Your task to perform on an android device: toggle data saver in the chrome app Image 0: 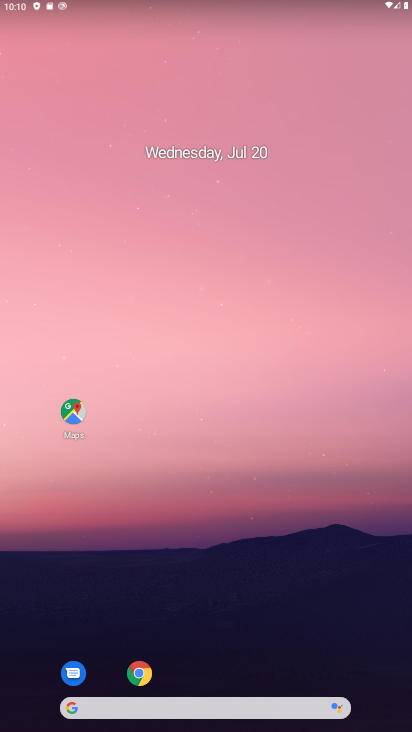
Step 0: drag from (109, 623) to (12, 108)
Your task to perform on an android device: toggle data saver in the chrome app Image 1: 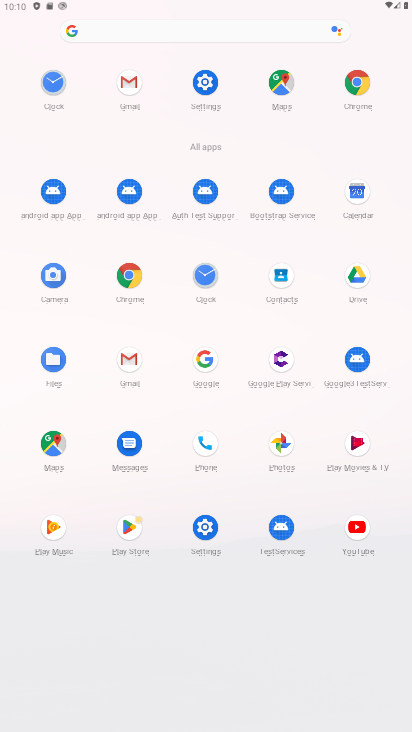
Step 1: click (204, 82)
Your task to perform on an android device: toggle data saver in the chrome app Image 2: 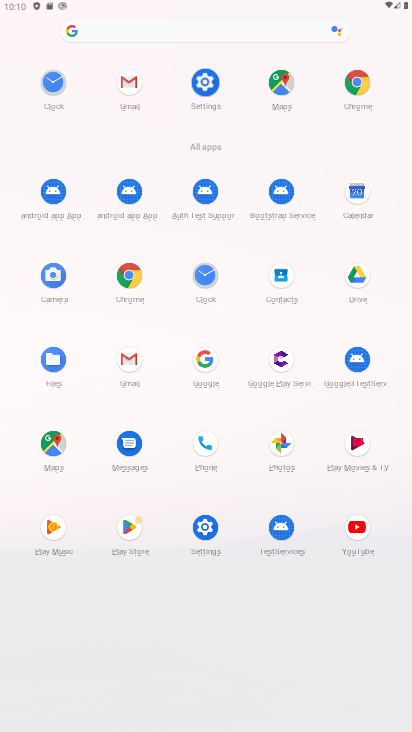
Step 2: click (204, 82)
Your task to perform on an android device: toggle data saver in the chrome app Image 3: 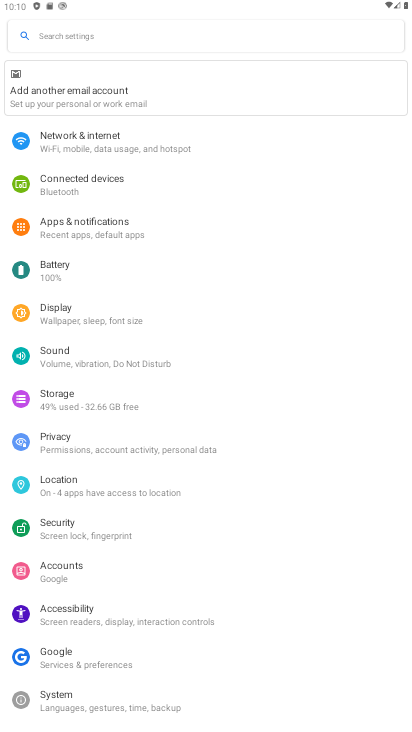
Step 3: click (58, 307)
Your task to perform on an android device: toggle data saver in the chrome app Image 4: 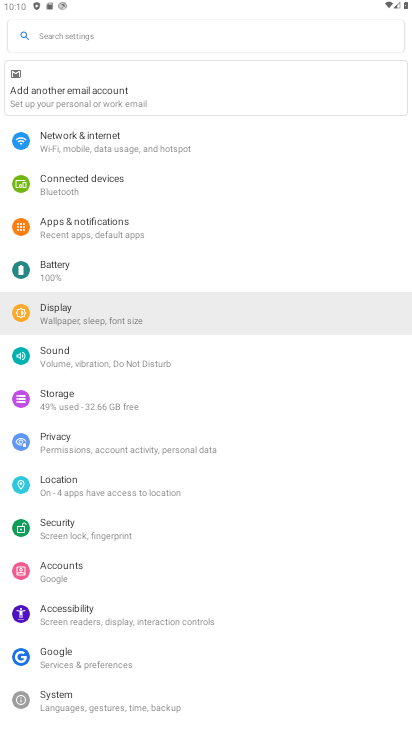
Step 4: click (57, 307)
Your task to perform on an android device: toggle data saver in the chrome app Image 5: 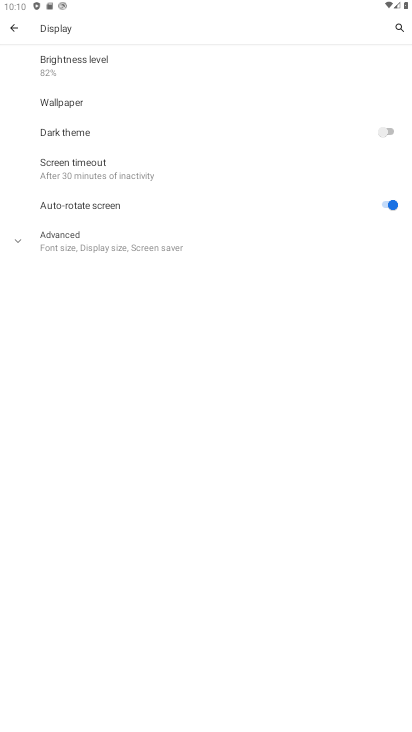
Step 5: click (52, 242)
Your task to perform on an android device: toggle data saver in the chrome app Image 6: 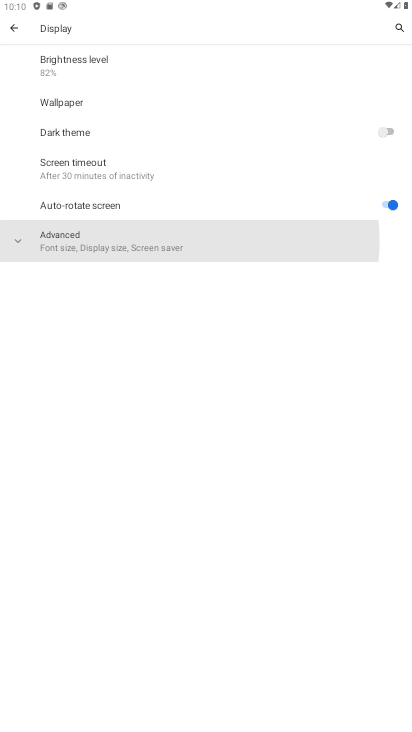
Step 6: click (59, 239)
Your task to perform on an android device: toggle data saver in the chrome app Image 7: 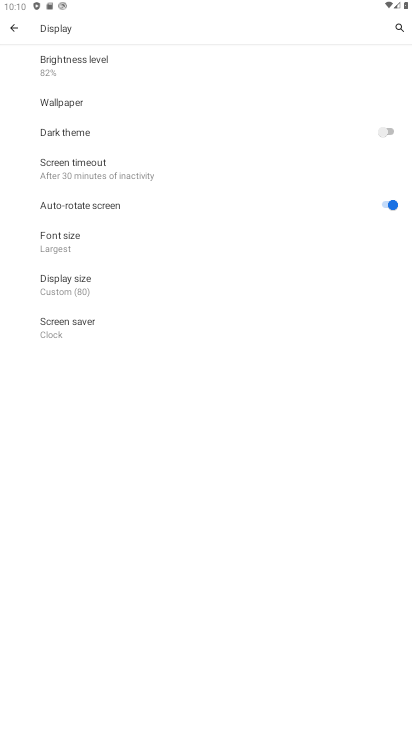
Step 7: click (59, 243)
Your task to perform on an android device: toggle data saver in the chrome app Image 8: 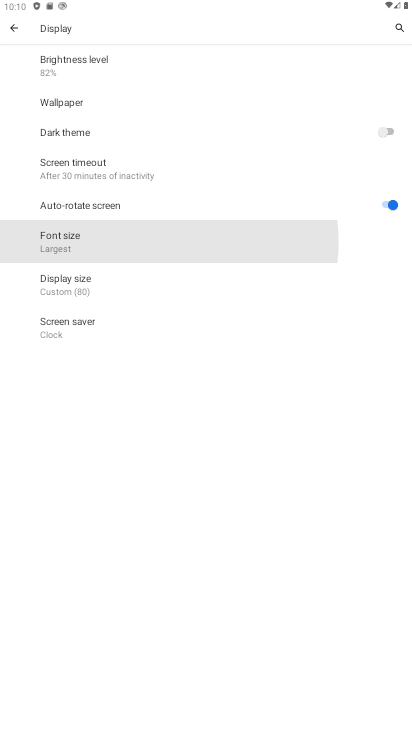
Step 8: click (58, 242)
Your task to perform on an android device: toggle data saver in the chrome app Image 9: 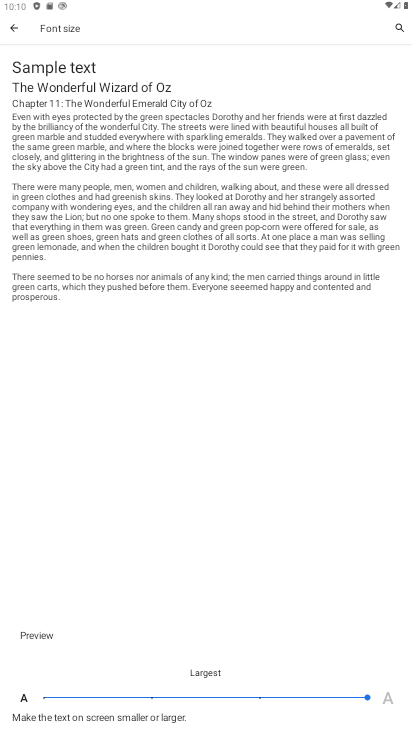
Step 9: click (369, 698)
Your task to perform on an android device: toggle data saver in the chrome app Image 10: 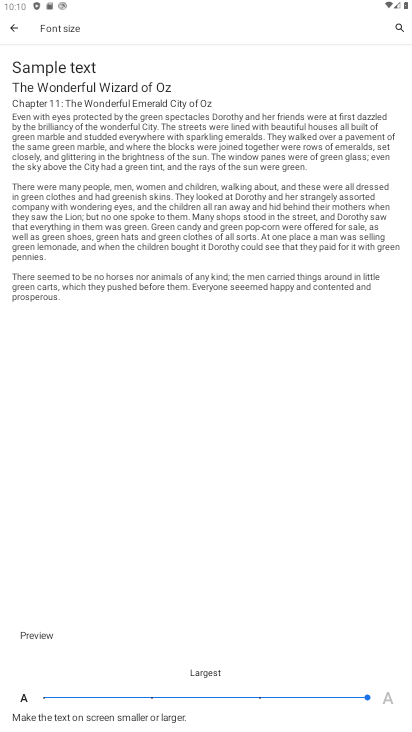
Step 10: click (386, 693)
Your task to perform on an android device: toggle data saver in the chrome app Image 11: 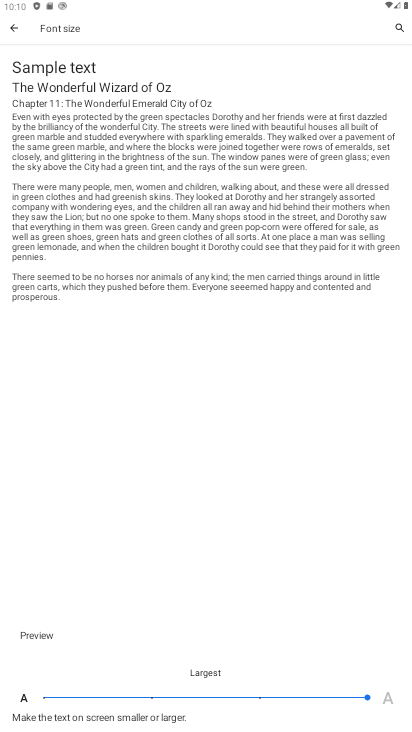
Step 11: click (387, 692)
Your task to perform on an android device: toggle data saver in the chrome app Image 12: 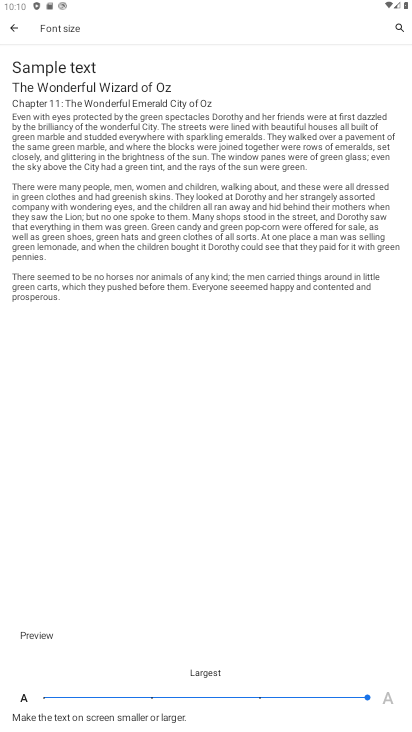
Step 12: click (388, 690)
Your task to perform on an android device: toggle data saver in the chrome app Image 13: 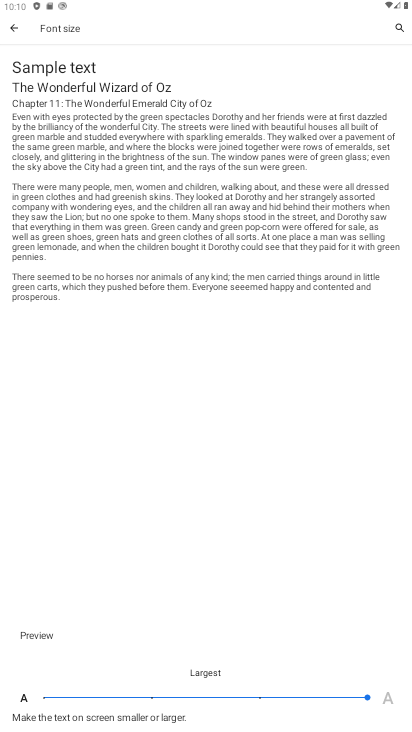
Step 13: click (391, 691)
Your task to perform on an android device: toggle data saver in the chrome app Image 14: 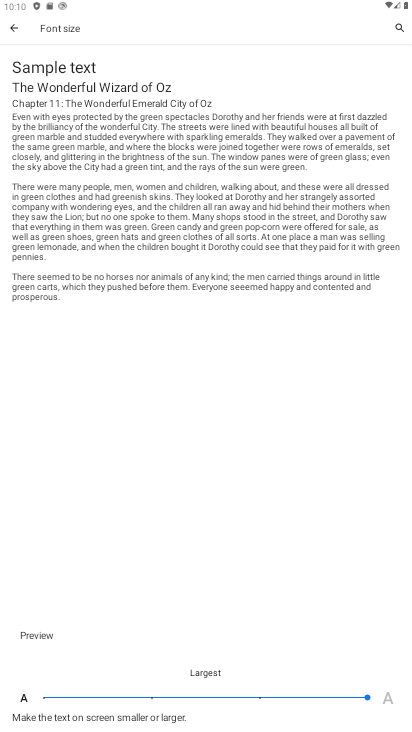
Step 14: click (392, 692)
Your task to perform on an android device: toggle data saver in the chrome app Image 15: 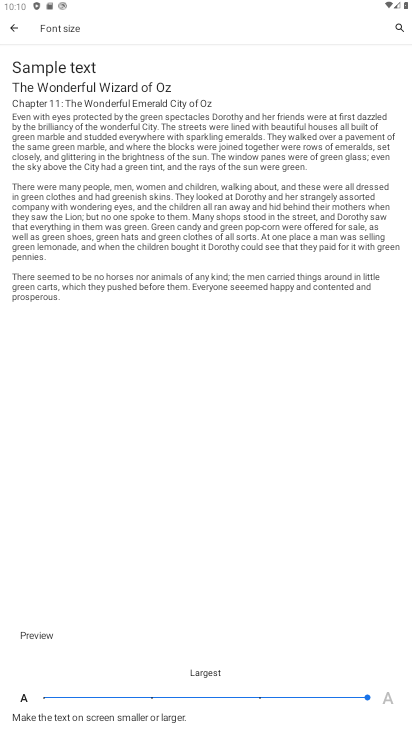
Step 15: click (393, 693)
Your task to perform on an android device: toggle data saver in the chrome app Image 16: 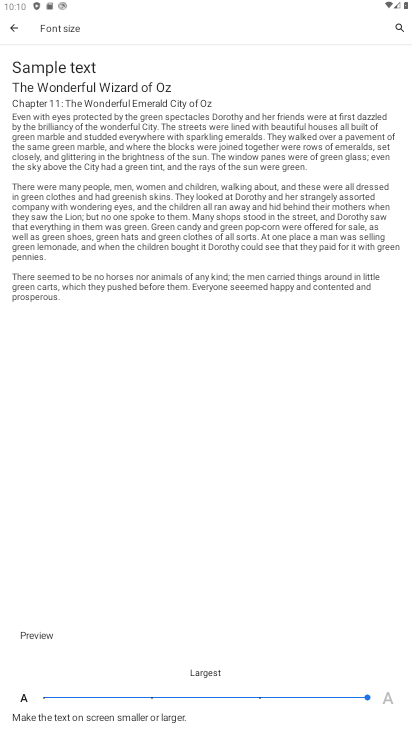
Step 16: click (16, 29)
Your task to perform on an android device: toggle data saver in the chrome app Image 17: 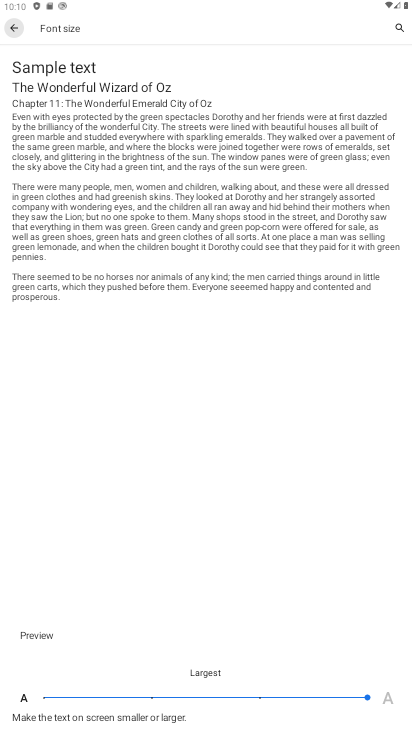
Step 17: click (16, 29)
Your task to perform on an android device: toggle data saver in the chrome app Image 18: 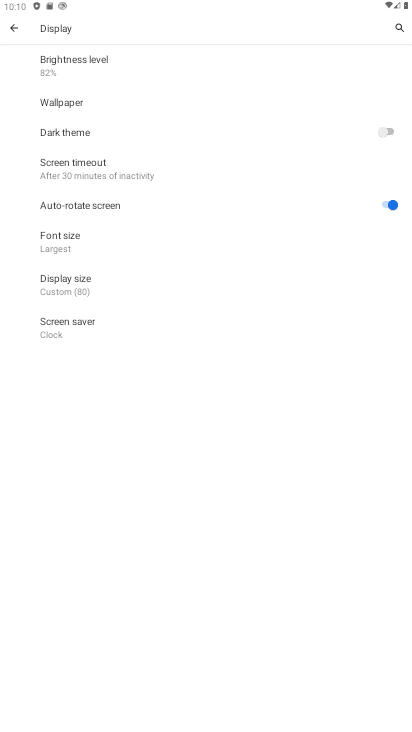
Step 18: press back button
Your task to perform on an android device: toggle data saver in the chrome app Image 19: 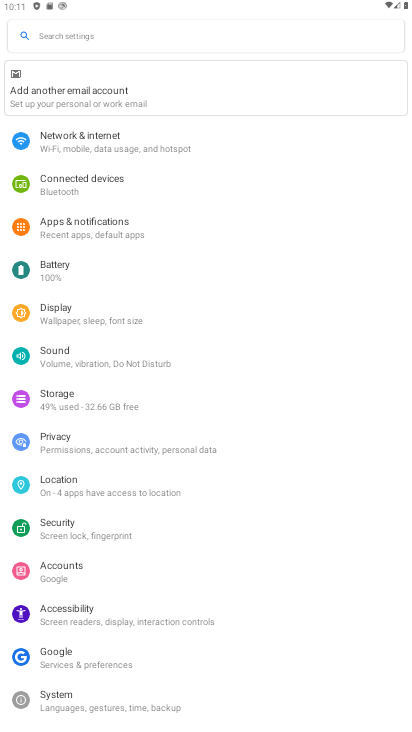
Step 19: press home button
Your task to perform on an android device: toggle data saver in the chrome app Image 20: 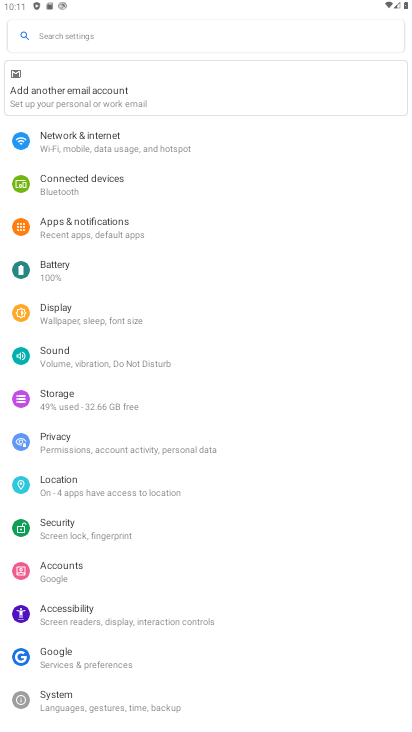
Step 20: press home button
Your task to perform on an android device: toggle data saver in the chrome app Image 21: 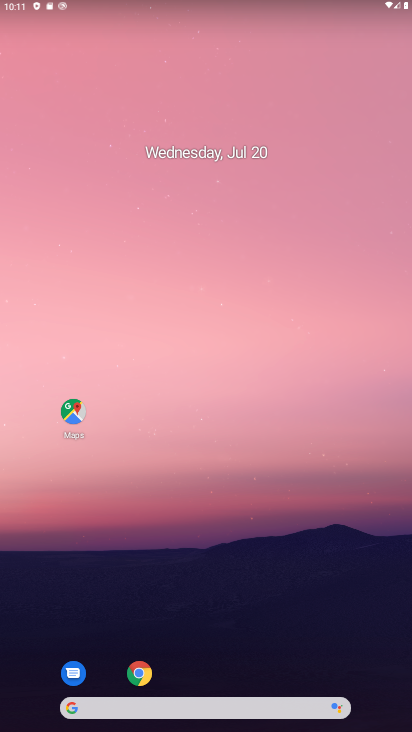
Step 21: drag from (244, 651) to (202, 269)
Your task to perform on an android device: toggle data saver in the chrome app Image 22: 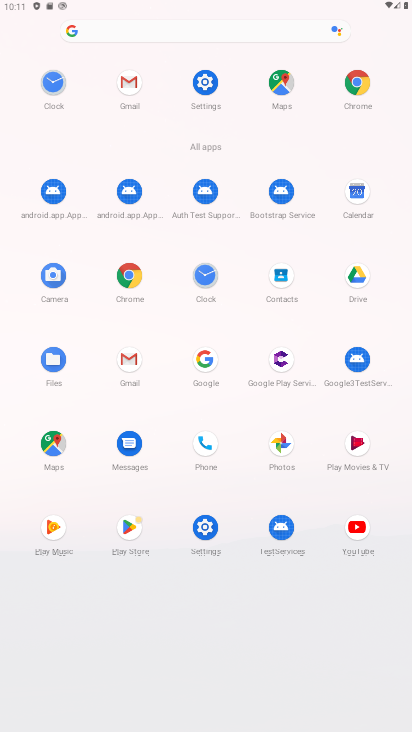
Step 22: click (127, 272)
Your task to perform on an android device: toggle data saver in the chrome app Image 23: 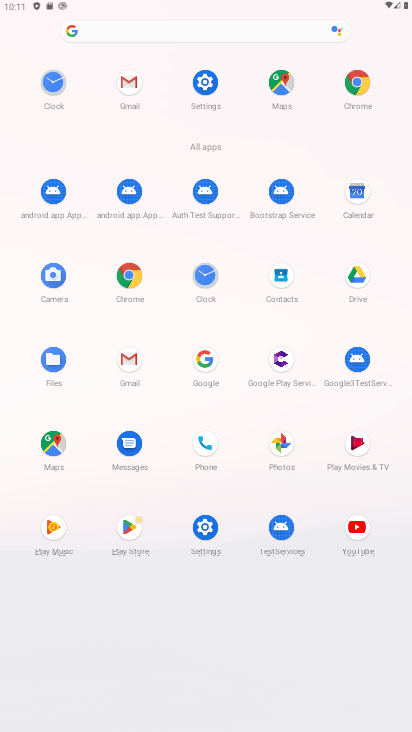
Step 23: click (126, 271)
Your task to perform on an android device: toggle data saver in the chrome app Image 24: 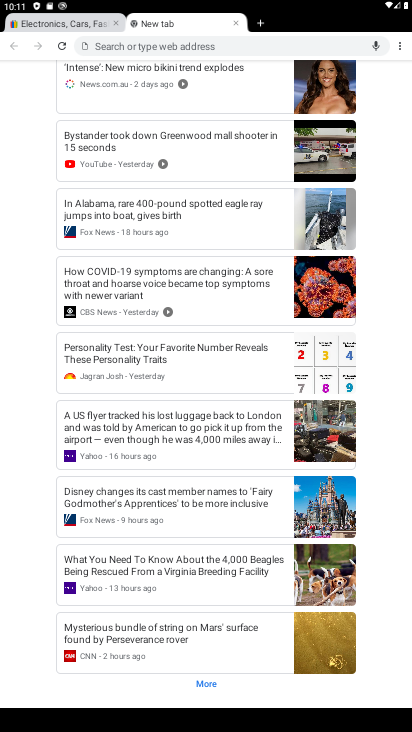
Step 24: drag from (394, 44) to (305, 211)
Your task to perform on an android device: toggle data saver in the chrome app Image 25: 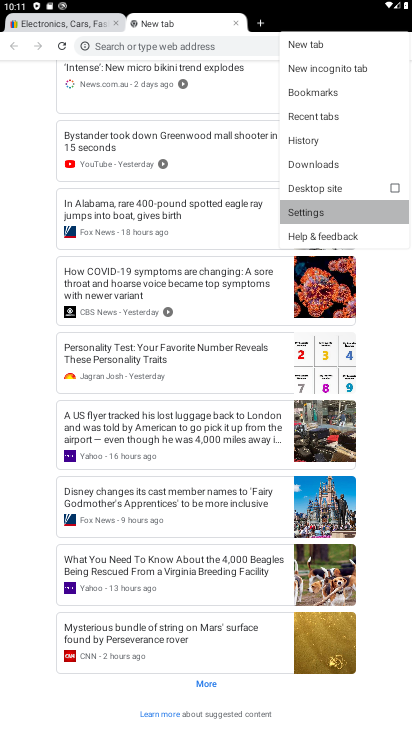
Step 25: click (310, 206)
Your task to perform on an android device: toggle data saver in the chrome app Image 26: 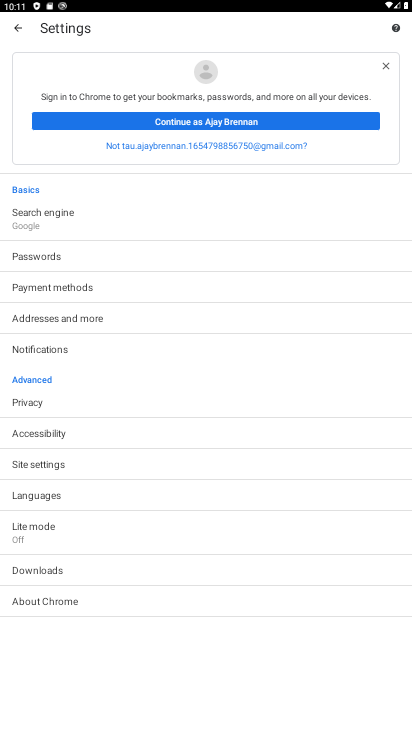
Step 26: click (45, 521)
Your task to perform on an android device: toggle data saver in the chrome app Image 27: 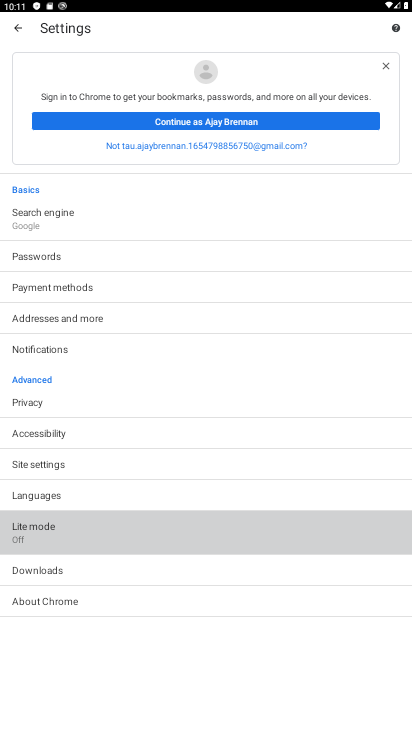
Step 27: click (44, 520)
Your task to perform on an android device: toggle data saver in the chrome app Image 28: 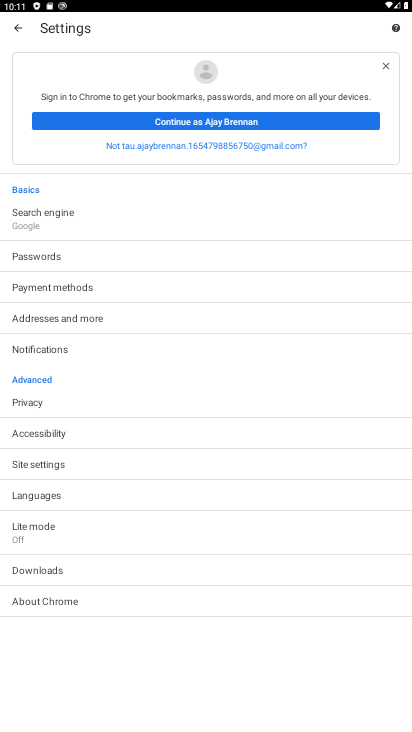
Step 28: click (43, 524)
Your task to perform on an android device: toggle data saver in the chrome app Image 29: 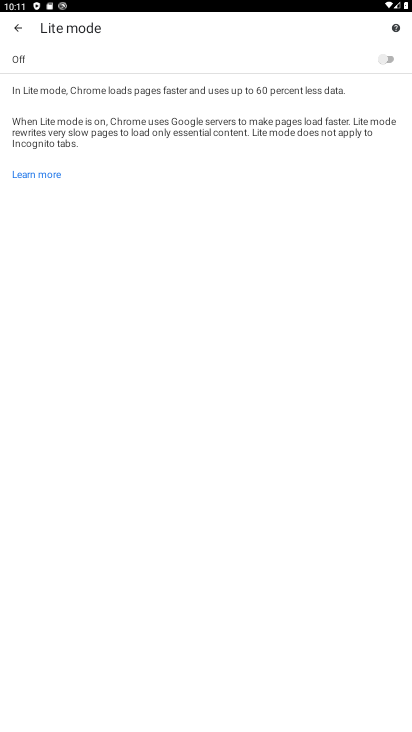
Step 29: click (384, 59)
Your task to perform on an android device: toggle data saver in the chrome app Image 30: 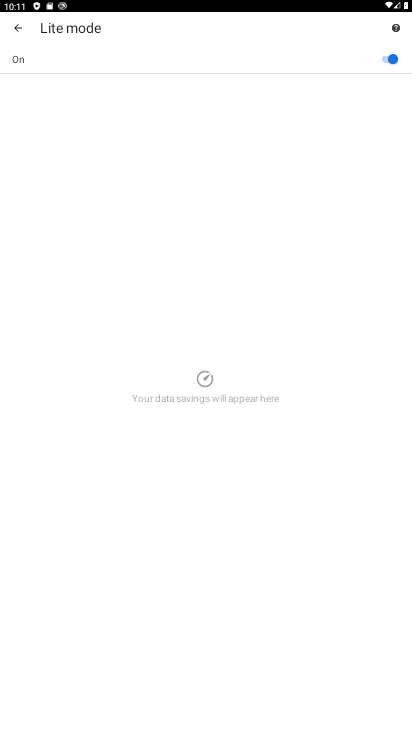
Step 30: task complete